Your task to perform on an android device: add a contact Image 0: 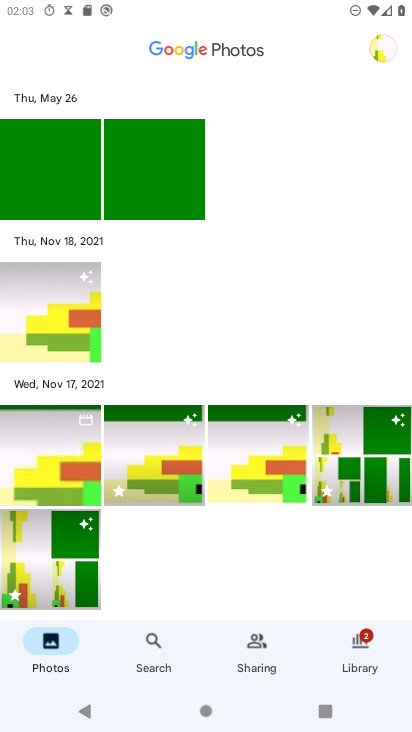
Step 0: press home button
Your task to perform on an android device: add a contact Image 1: 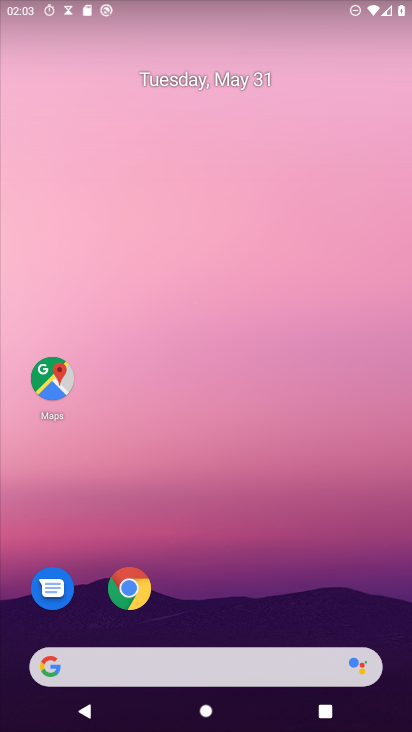
Step 1: drag from (345, 597) to (333, 0)
Your task to perform on an android device: add a contact Image 2: 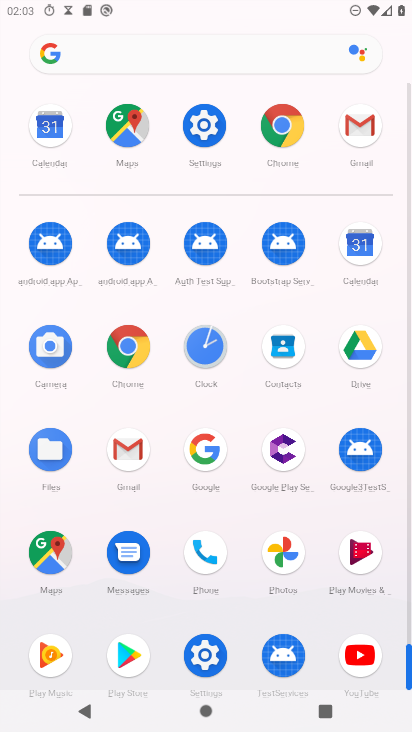
Step 2: click (276, 353)
Your task to perform on an android device: add a contact Image 3: 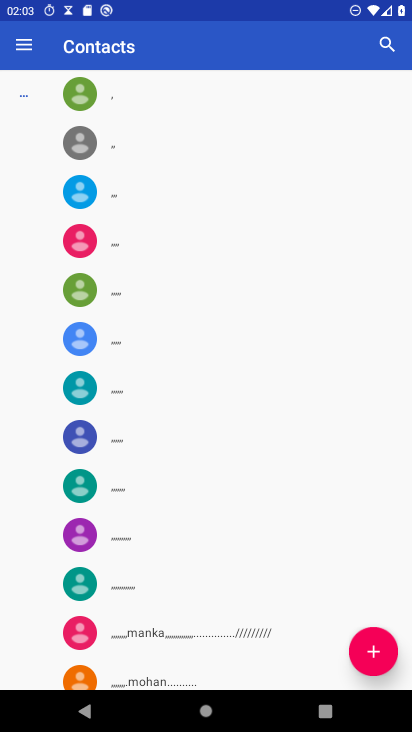
Step 3: click (367, 648)
Your task to perform on an android device: add a contact Image 4: 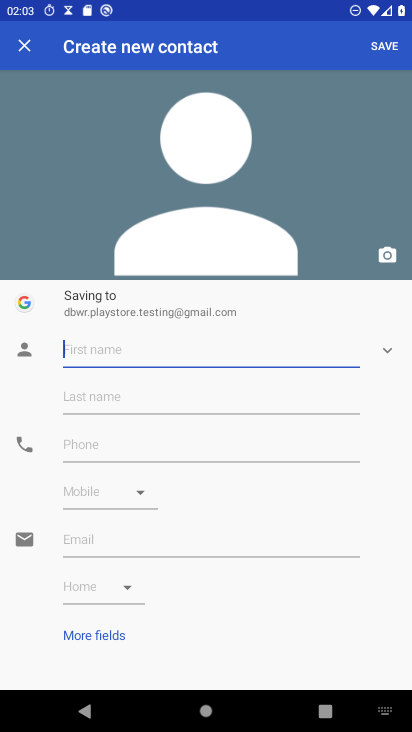
Step 4: type "hjfjfjdjjk"
Your task to perform on an android device: add a contact Image 5: 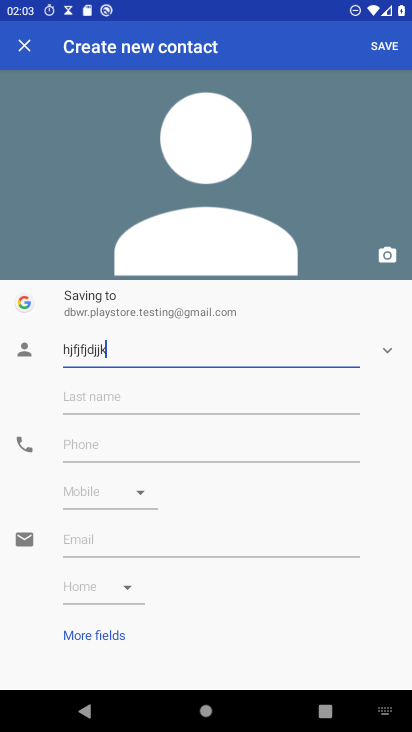
Step 5: click (126, 448)
Your task to perform on an android device: add a contact Image 6: 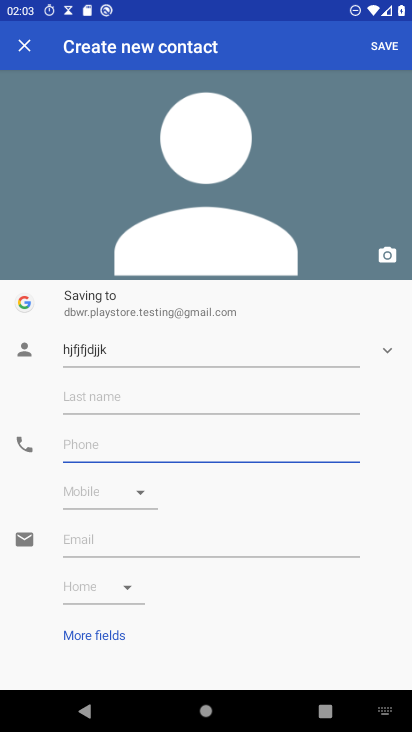
Step 6: type "98766556777"
Your task to perform on an android device: add a contact Image 7: 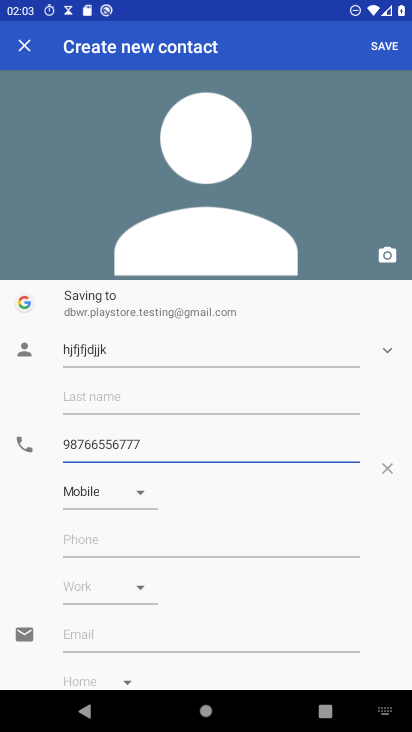
Step 7: click (381, 50)
Your task to perform on an android device: add a contact Image 8: 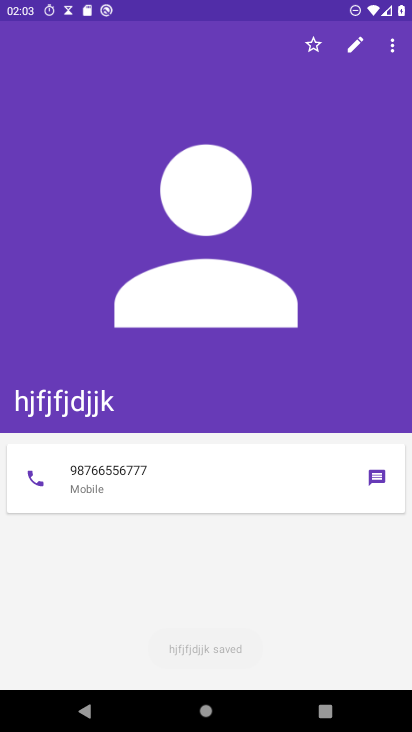
Step 8: task complete